Your task to perform on an android device: change the upload size in google photos Image 0: 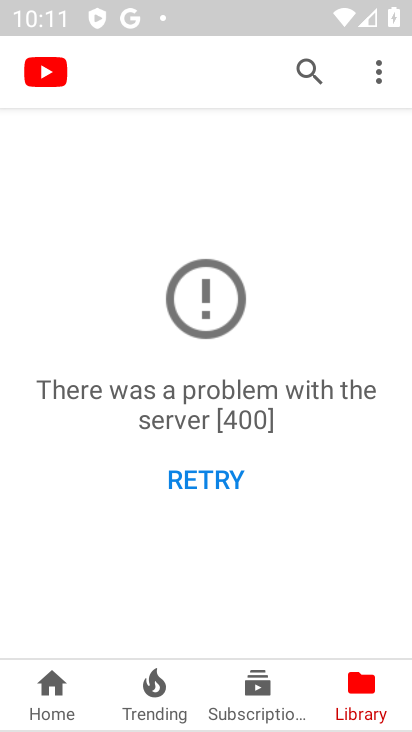
Step 0: press home button
Your task to perform on an android device: change the upload size in google photos Image 1: 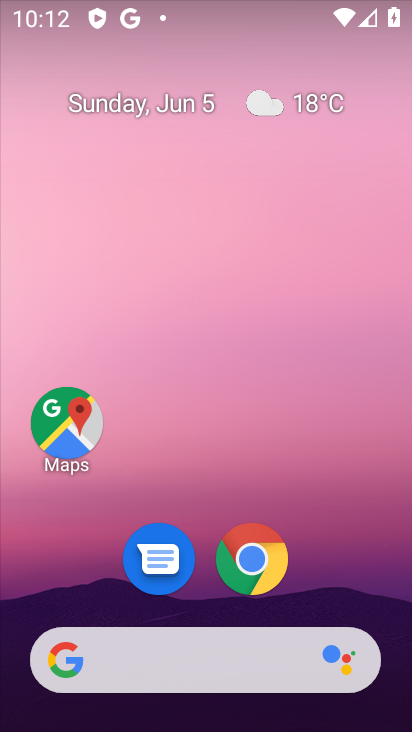
Step 1: drag from (391, 676) to (288, 92)
Your task to perform on an android device: change the upload size in google photos Image 2: 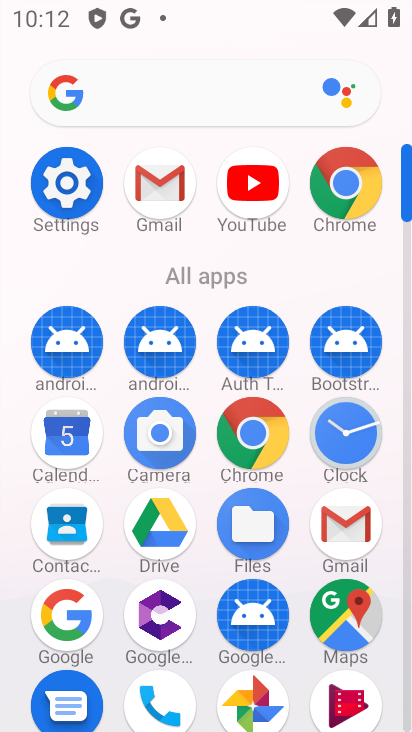
Step 2: click (246, 682)
Your task to perform on an android device: change the upload size in google photos Image 3: 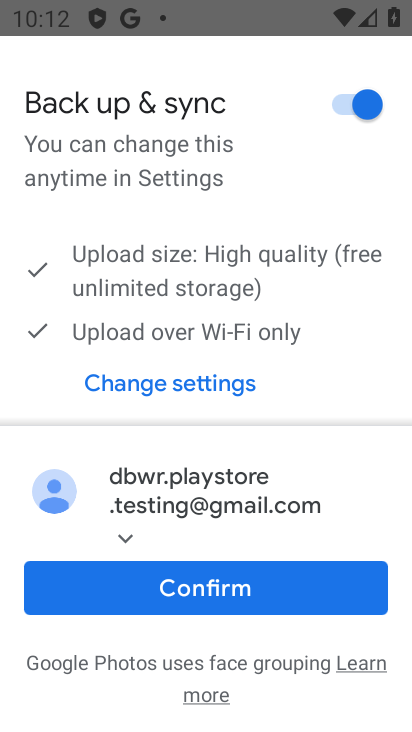
Step 3: click (267, 589)
Your task to perform on an android device: change the upload size in google photos Image 4: 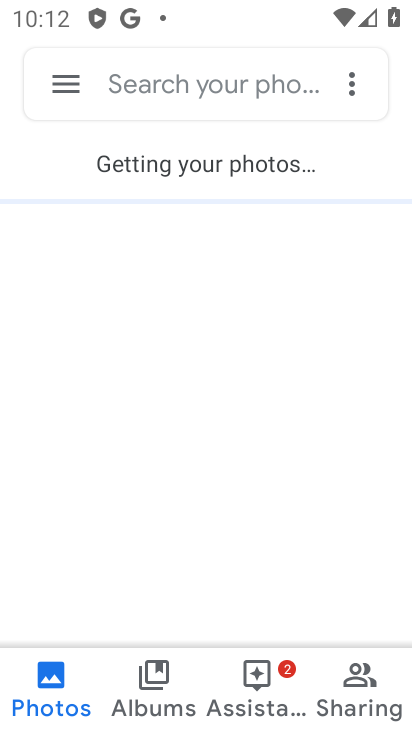
Step 4: click (61, 85)
Your task to perform on an android device: change the upload size in google photos Image 5: 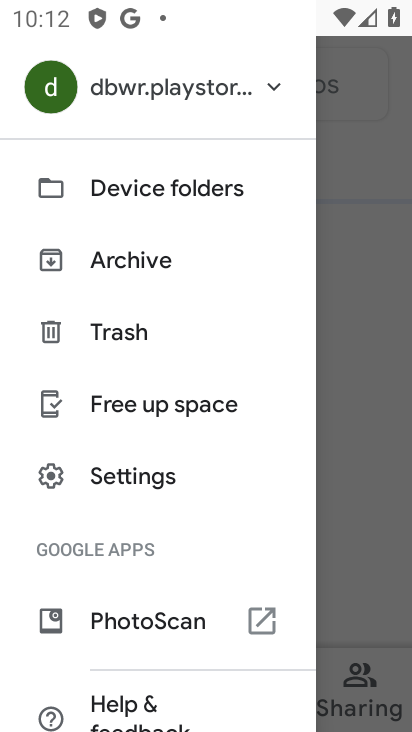
Step 5: click (162, 466)
Your task to perform on an android device: change the upload size in google photos Image 6: 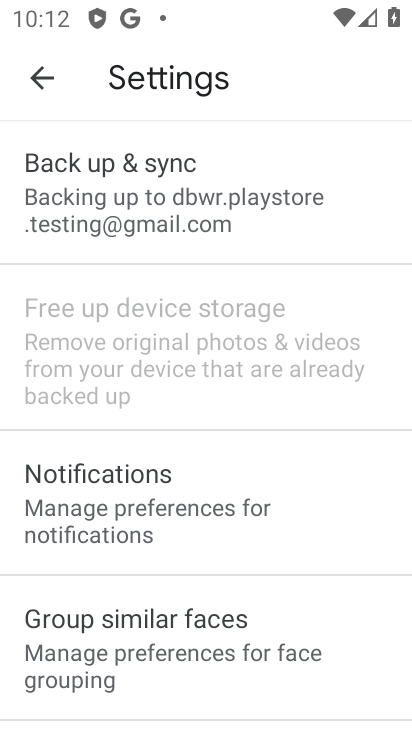
Step 6: click (140, 200)
Your task to perform on an android device: change the upload size in google photos Image 7: 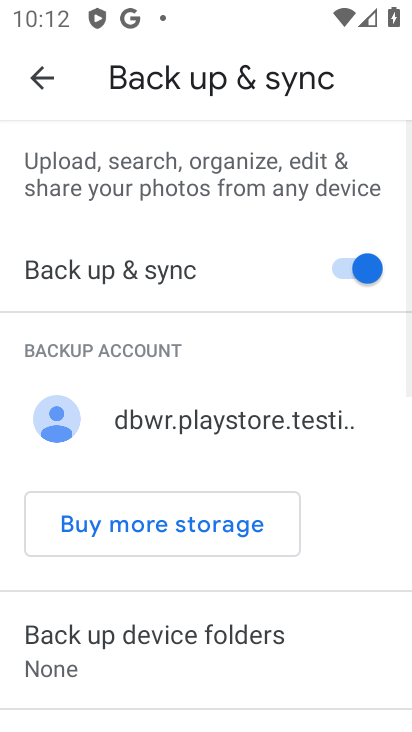
Step 7: drag from (186, 657) to (131, 237)
Your task to perform on an android device: change the upload size in google photos Image 8: 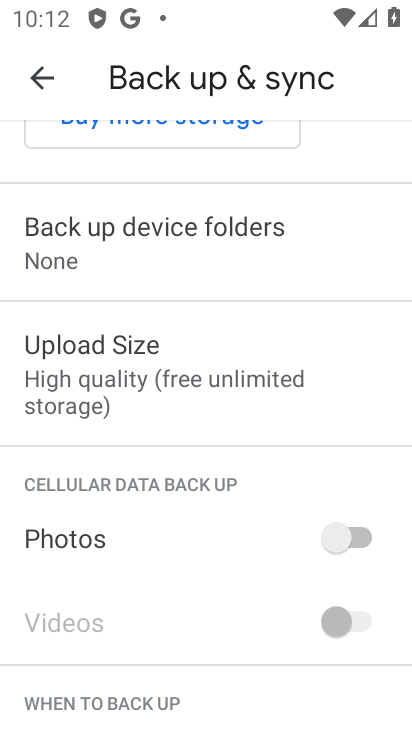
Step 8: click (111, 361)
Your task to perform on an android device: change the upload size in google photos Image 9: 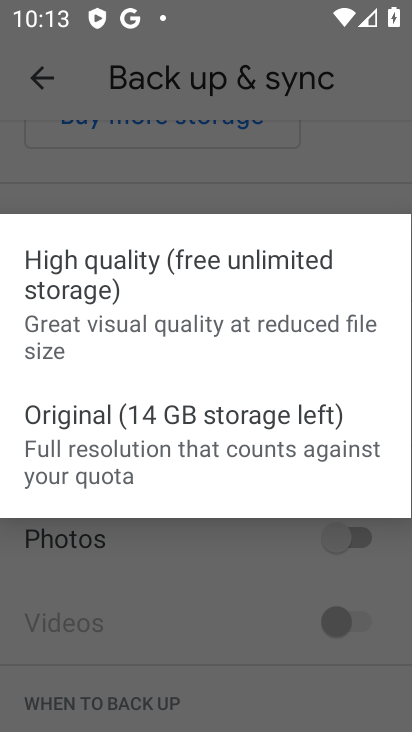
Step 9: click (116, 268)
Your task to perform on an android device: change the upload size in google photos Image 10: 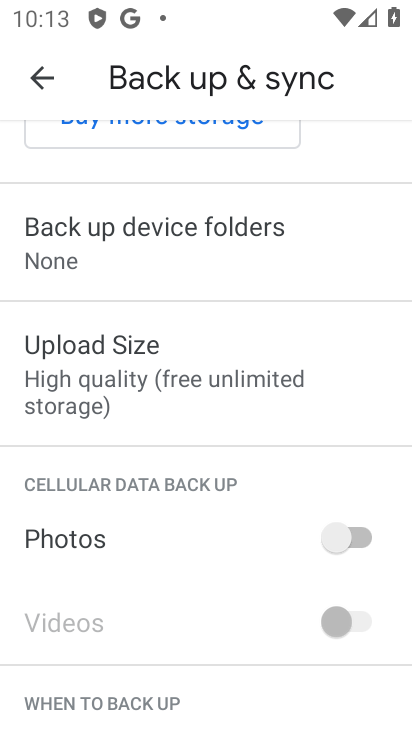
Step 10: click (117, 383)
Your task to perform on an android device: change the upload size in google photos Image 11: 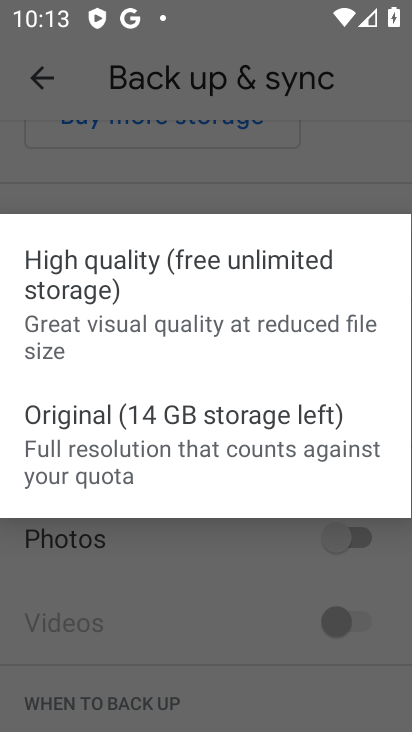
Step 11: click (105, 414)
Your task to perform on an android device: change the upload size in google photos Image 12: 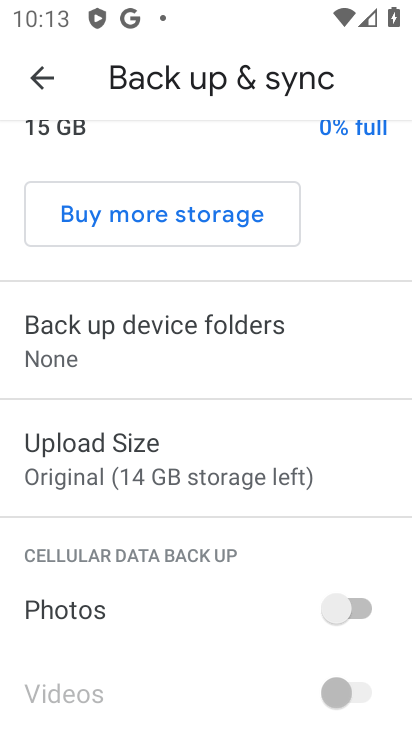
Step 12: task complete